Your task to perform on an android device: Open CNN.com Image 0: 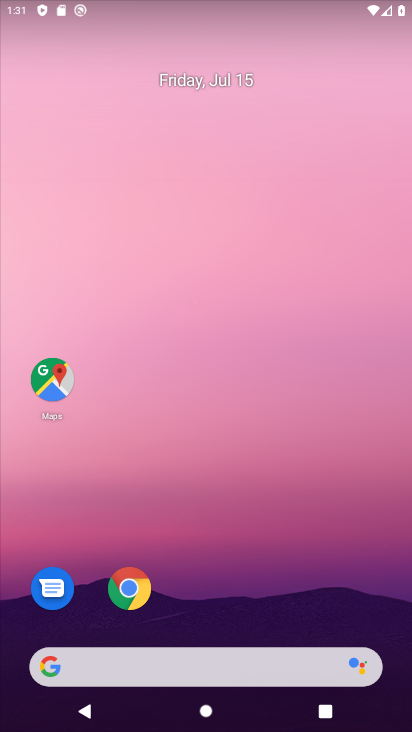
Step 0: click (131, 589)
Your task to perform on an android device: Open CNN.com Image 1: 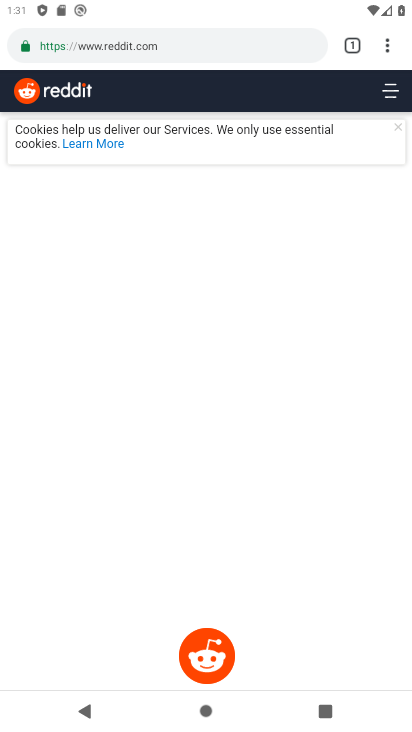
Step 1: click (295, 49)
Your task to perform on an android device: Open CNN.com Image 2: 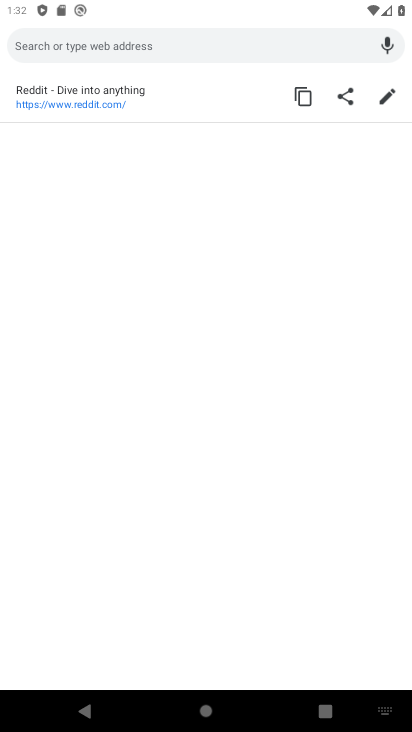
Step 2: type "CNN.com"
Your task to perform on an android device: Open CNN.com Image 3: 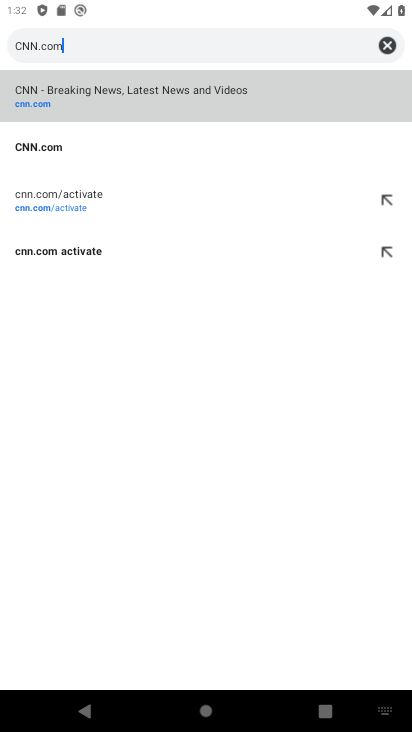
Step 3: click (55, 150)
Your task to perform on an android device: Open CNN.com Image 4: 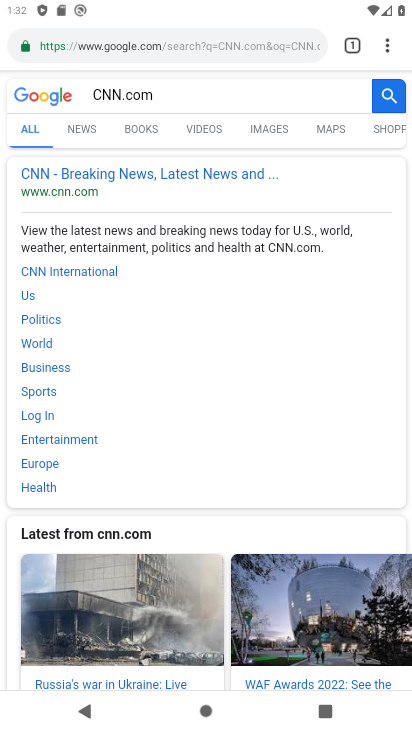
Step 4: click (54, 187)
Your task to perform on an android device: Open CNN.com Image 5: 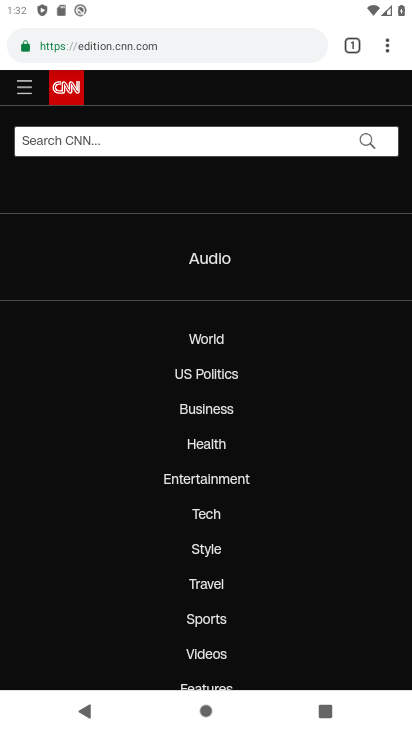
Step 5: task complete